Your task to perform on an android device: check out phone information Image 0: 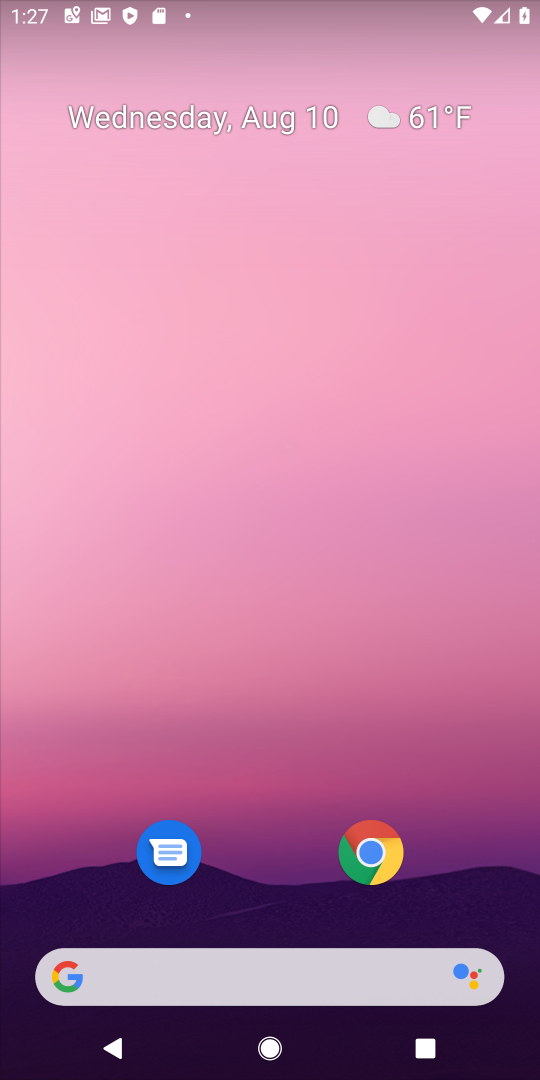
Step 0: press home button
Your task to perform on an android device: check out phone information Image 1: 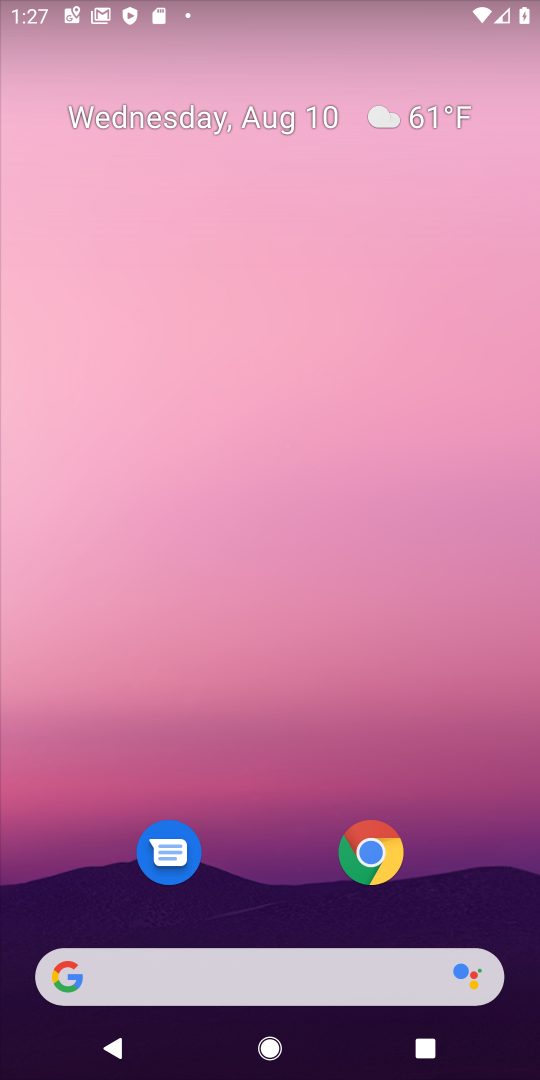
Step 1: press home button
Your task to perform on an android device: check out phone information Image 2: 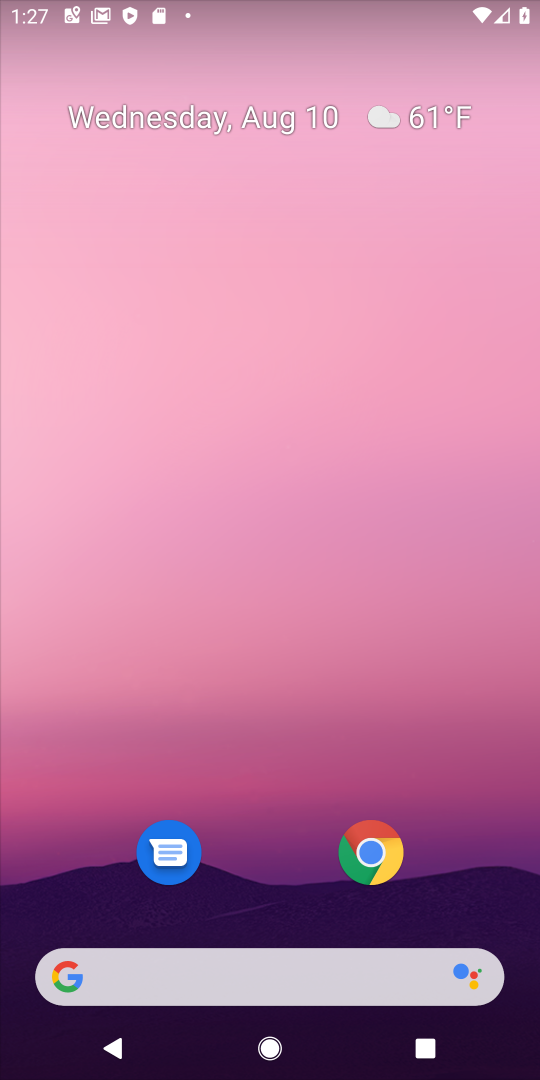
Step 2: drag from (264, 800) to (239, 4)
Your task to perform on an android device: check out phone information Image 3: 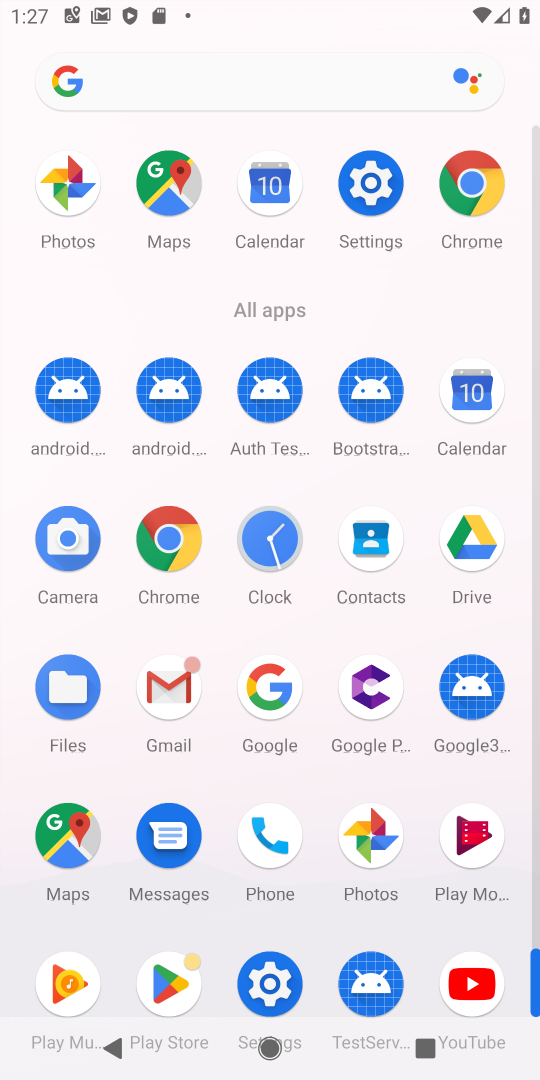
Step 3: click (263, 839)
Your task to perform on an android device: check out phone information Image 4: 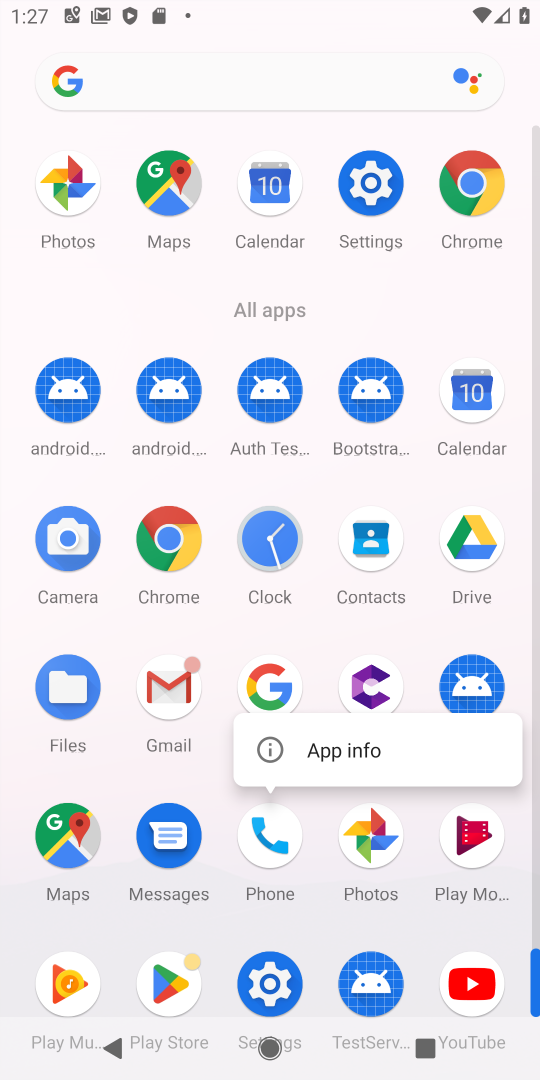
Step 4: click (352, 745)
Your task to perform on an android device: check out phone information Image 5: 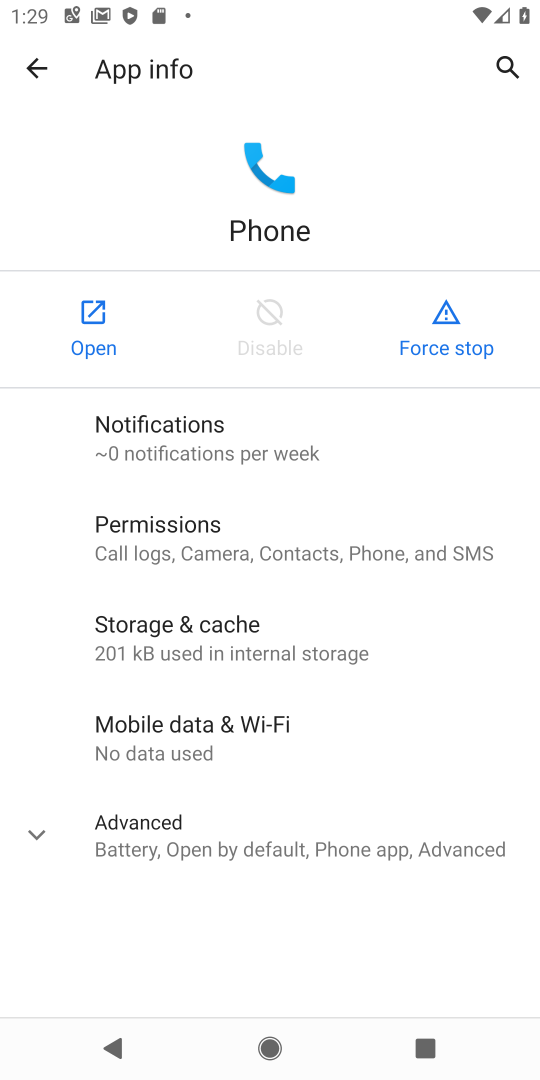
Step 5: task complete